Your task to perform on an android device: turn on javascript in the chrome app Image 0: 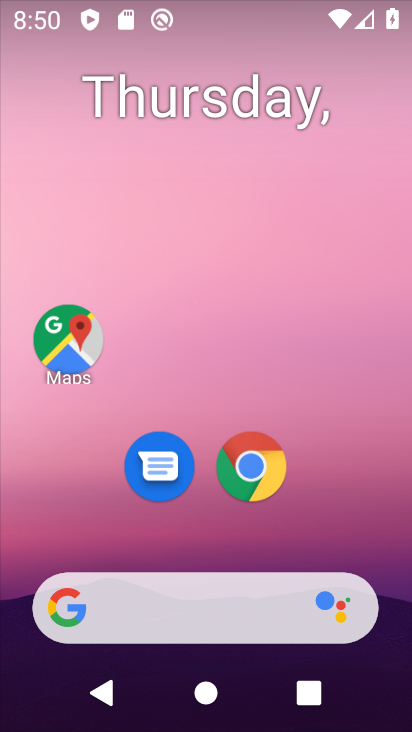
Step 0: click (268, 464)
Your task to perform on an android device: turn on javascript in the chrome app Image 1: 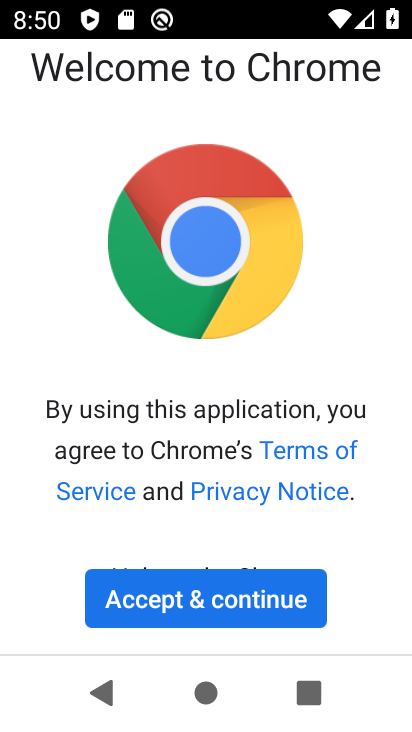
Step 1: click (192, 580)
Your task to perform on an android device: turn on javascript in the chrome app Image 2: 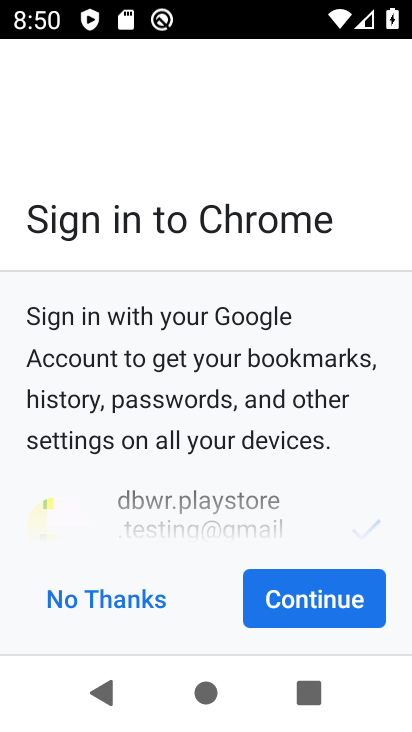
Step 2: click (293, 596)
Your task to perform on an android device: turn on javascript in the chrome app Image 3: 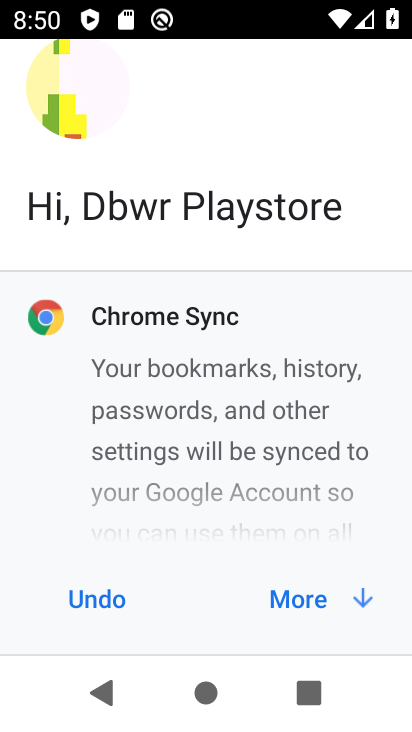
Step 3: click (357, 606)
Your task to perform on an android device: turn on javascript in the chrome app Image 4: 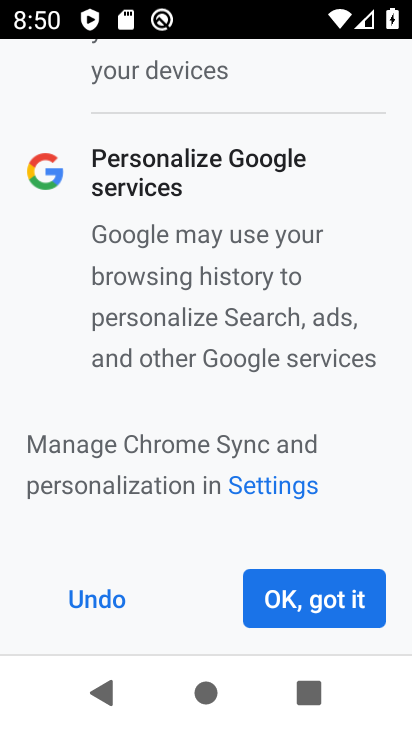
Step 4: click (357, 606)
Your task to perform on an android device: turn on javascript in the chrome app Image 5: 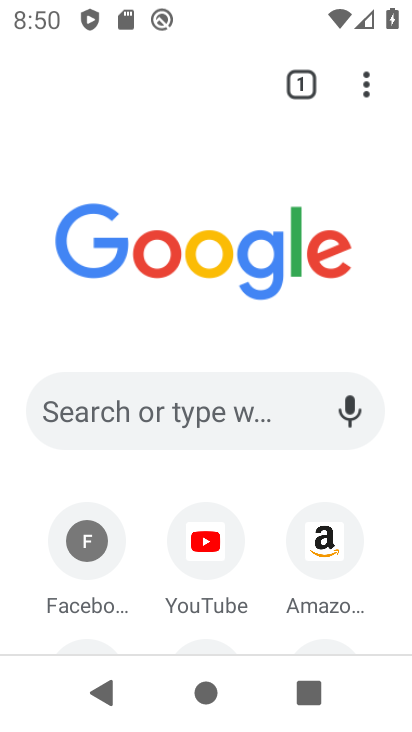
Step 5: click (372, 70)
Your task to perform on an android device: turn on javascript in the chrome app Image 6: 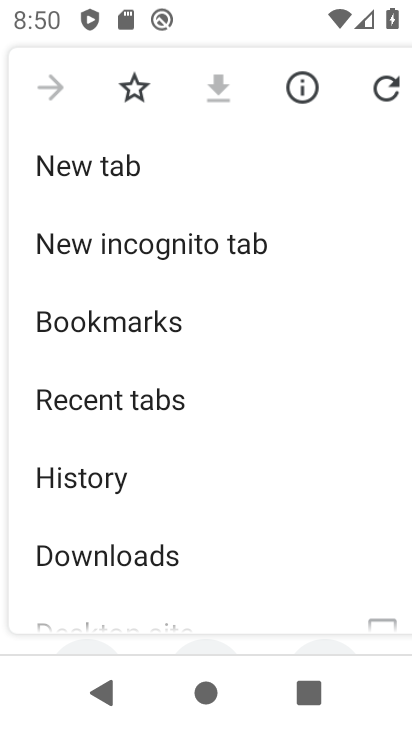
Step 6: drag from (147, 538) to (146, 128)
Your task to perform on an android device: turn on javascript in the chrome app Image 7: 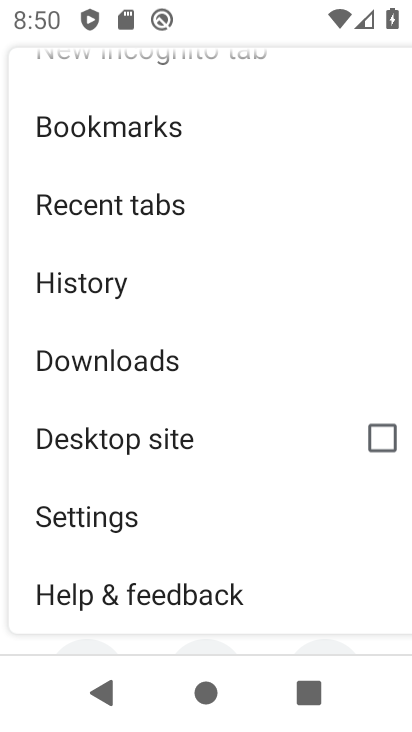
Step 7: click (104, 521)
Your task to perform on an android device: turn on javascript in the chrome app Image 8: 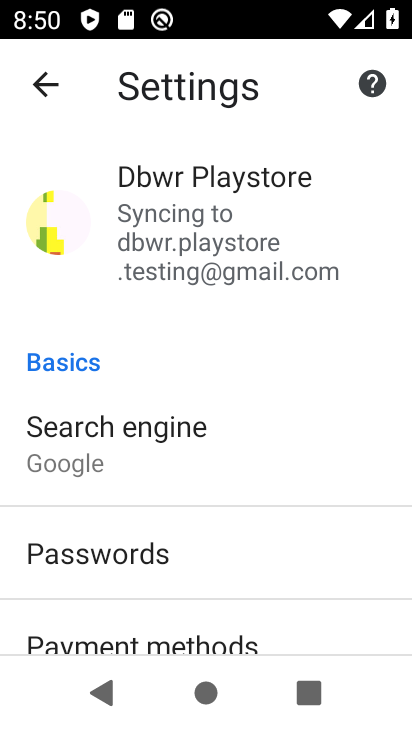
Step 8: drag from (162, 572) to (155, 199)
Your task to perform on an android device: turn on javascript in the chrome app Image 9: 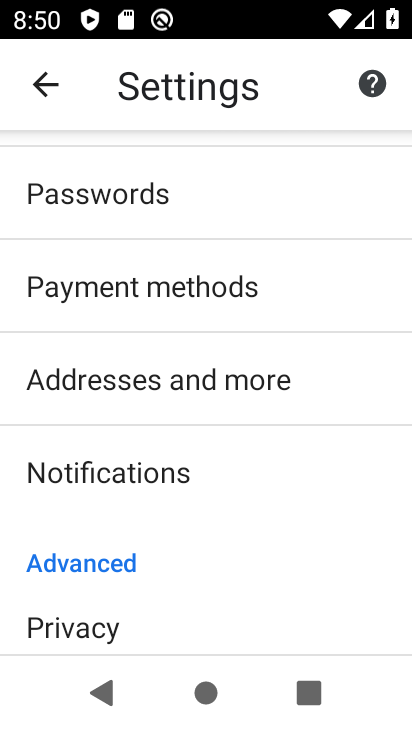
Step 9: drag from (167, 558) to (139, 200)
Your task to perform on an android device: turn on javascript in the chrome app Image 10: 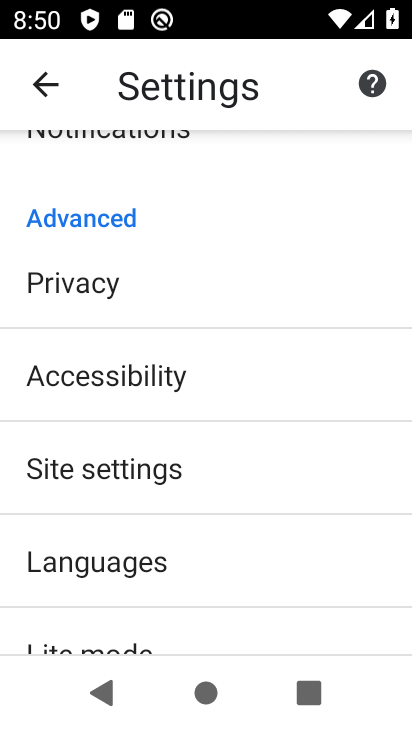
Step 10: drag from (248, 587) to (231, 509)
Your task to perform on an android device: turn on javascript in the chrome app Image 11: 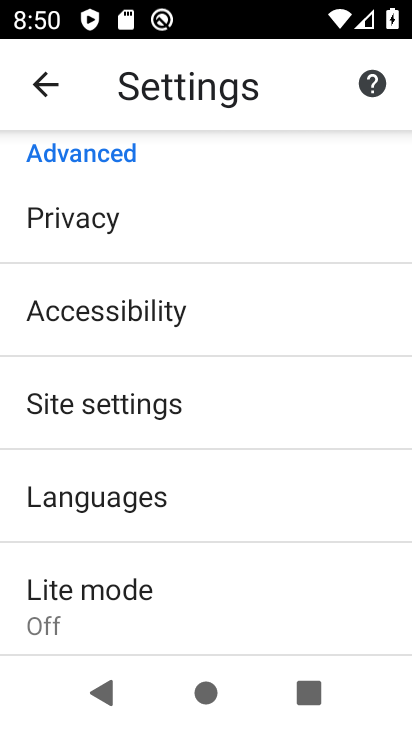
Step 11: click (137, 395)
Your task to perform on an android device: turn on javascript in the chrome app Image 12: 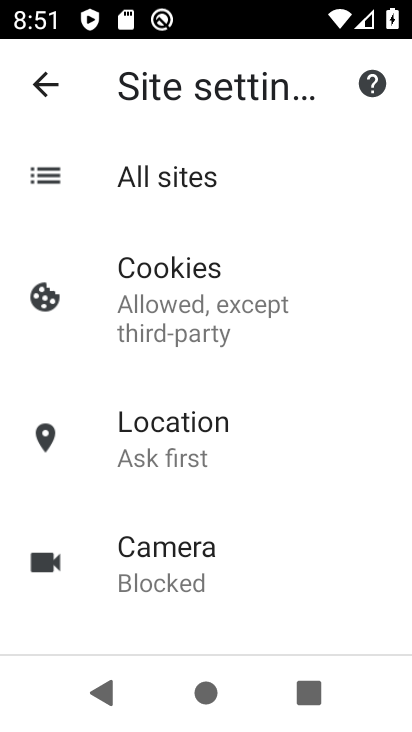
Step 12: drag from (223, 526) to (172, 176)
Your task to perform on an android device: turn on javascript in the chrome app Image 13: 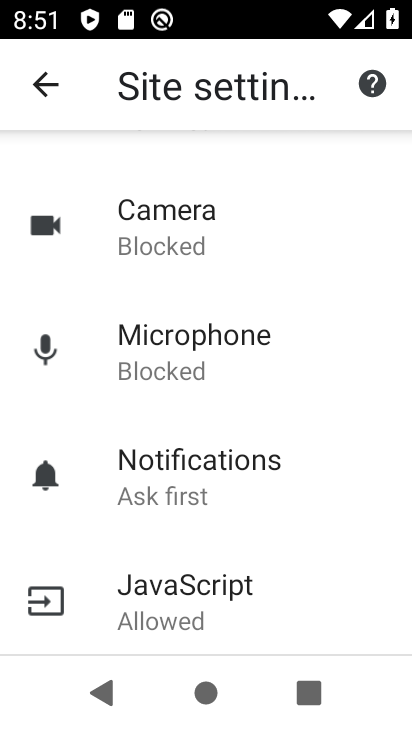
Step 13: click (199, 589)
Your task to perform on an android device: turn on javascript in the chrome app Image 14: 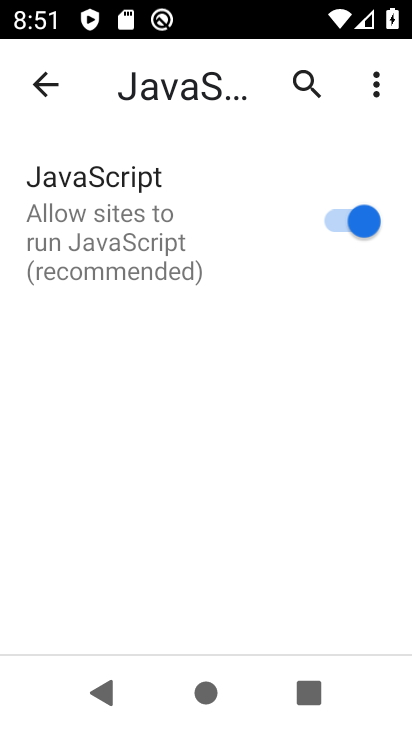
Step 14: task complete